Your task to perform on an android device: Is it going to rain today? Image 0: 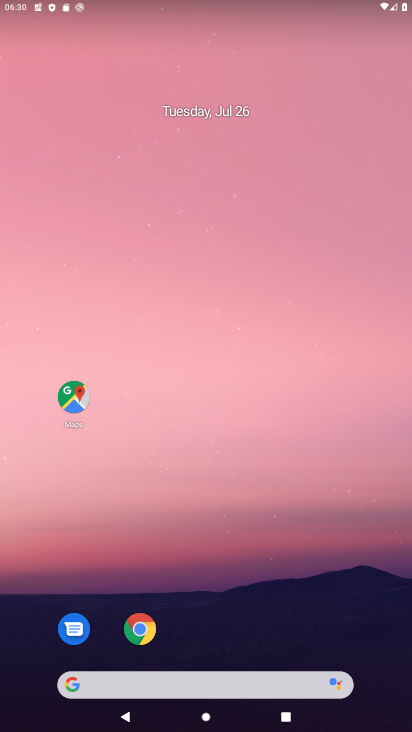
Step 0: click (136, 677)
Your task to perform on an android device: Is it going to rain today? Image 1: 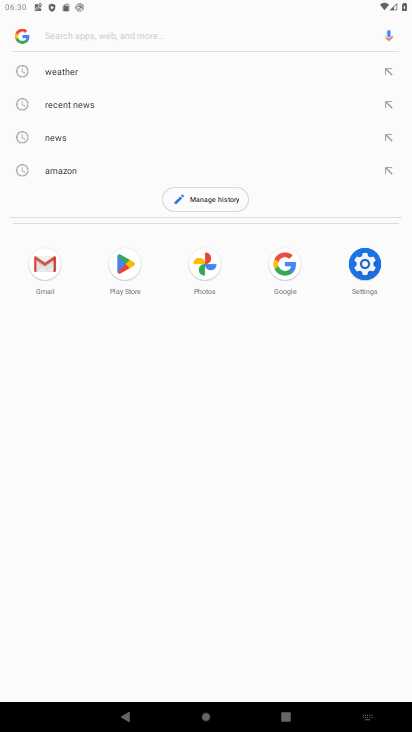
Step 1: click (67, 72)
Your task to perform on an android device: Is it going to rain today? Image 2: 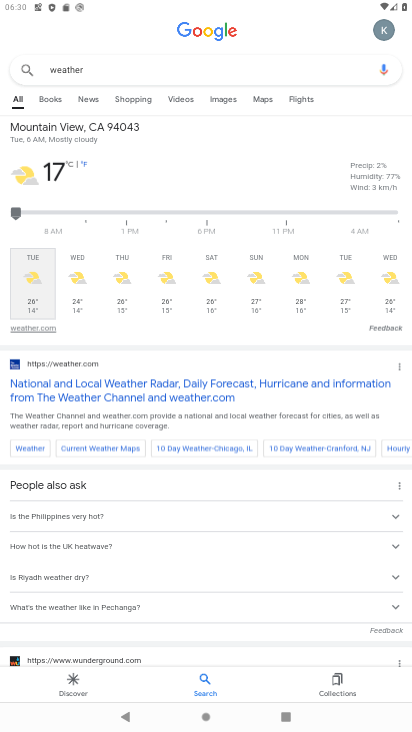
Step 2: task complete